Your task to perform on an android device: Open maps Image 0: 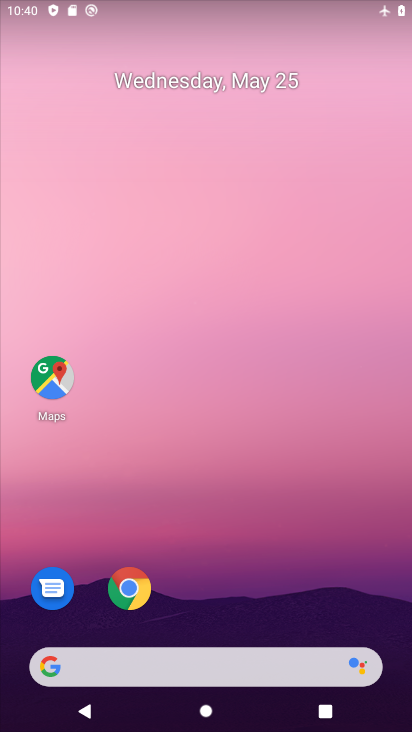
Step 0: click (50, 382)
Your task to perform on an android device: Open maps Image 1: 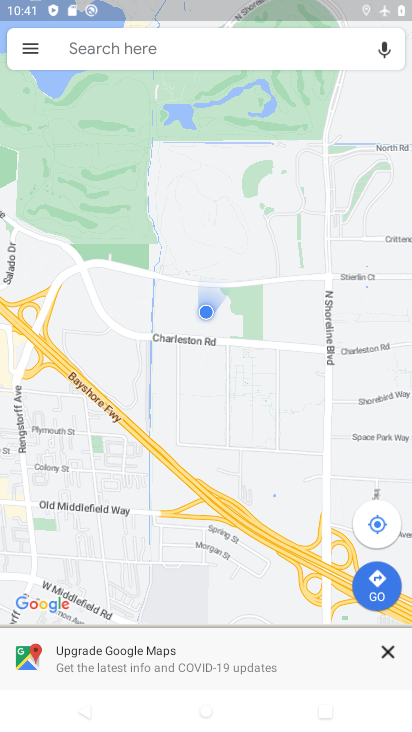
Step 1: task complete